Your task to perform on an android device: Open Chrome and go to the settings page Image 0: 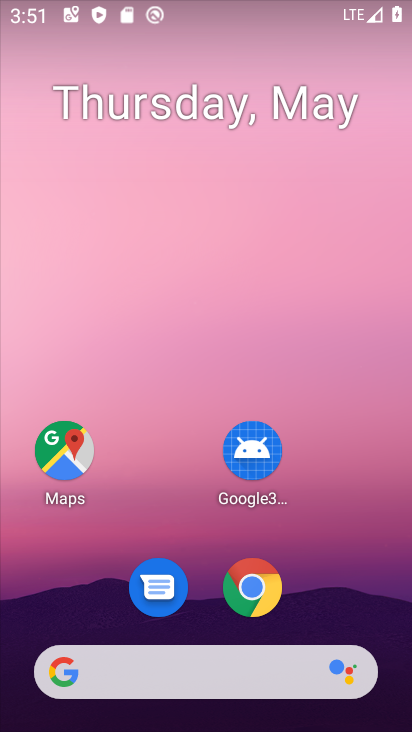
Step 0: click (234, 571)
Your task to perform on an android device: Open Chrome and go to the settings page Image 1: 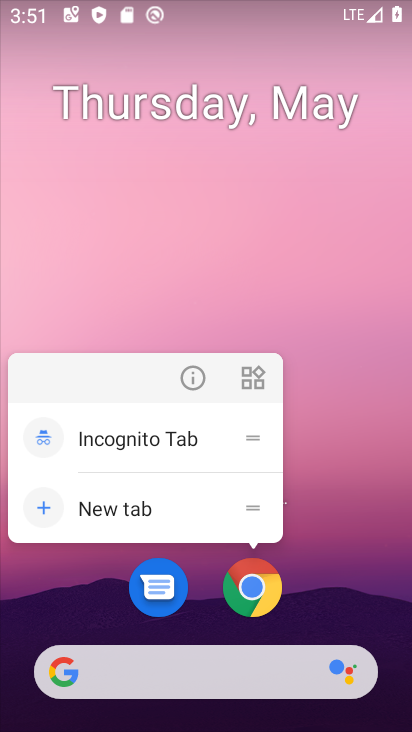
Step 1: click (245, 589)
Your task to perform on an android device: Open Chrome and go to the settings page Image 2: 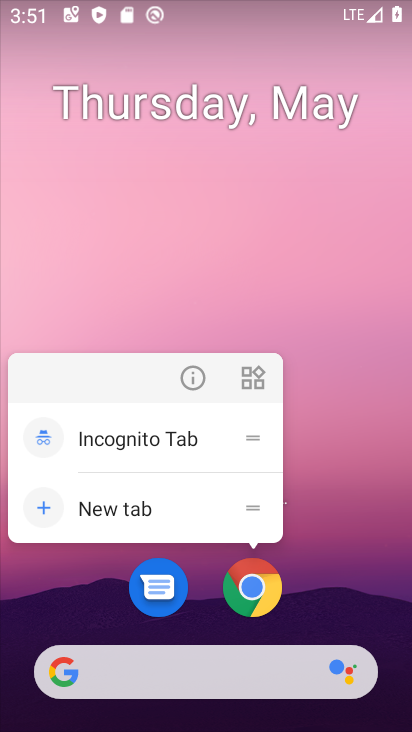
Step 2: click (245, 589)
Your task to perform on an android device: Open Chrome and go to the settings page Image 3: 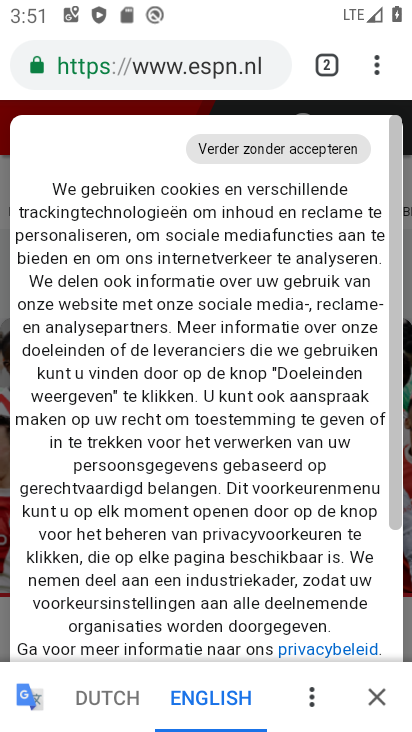
Step 3: click (366, 59)
Your task to perform on an android device: Open Chrome and go to the settings page Image 4: 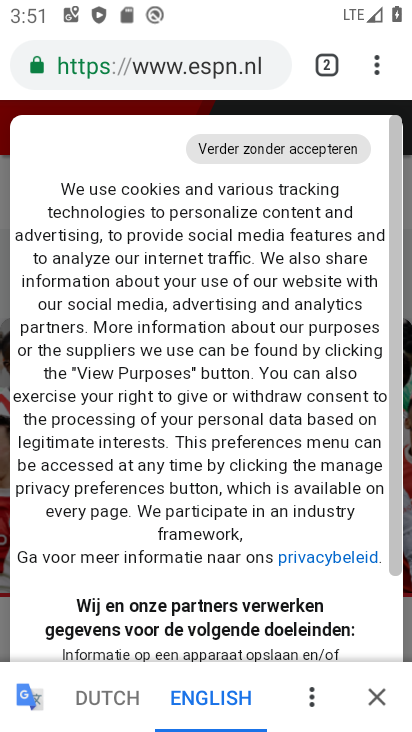
Step 4: drag from (271, 91) to (271, 174)
Your task to perform on an android device: Open Chrome and go to the settings page Image 5: 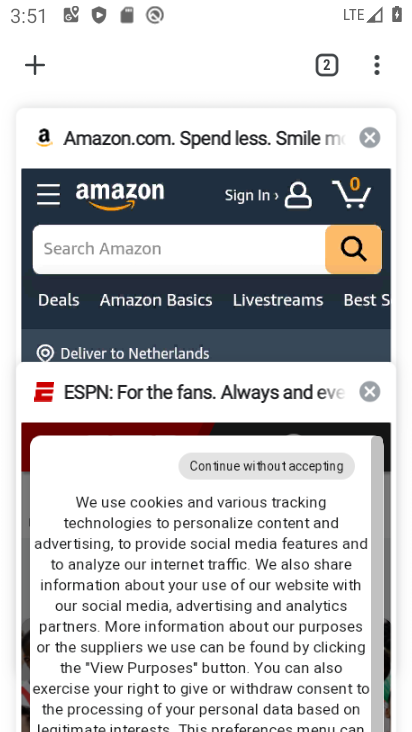
Step 5: click (375, 61)
Your task to perform on an android device: Open Chrome and go to the settings page Image 6: 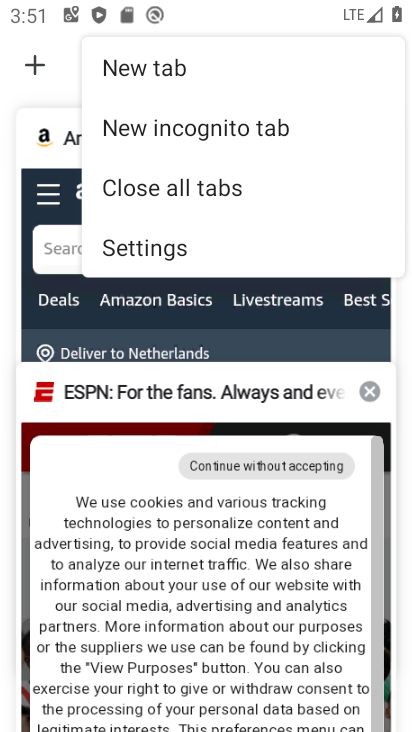
Step 6: click (226, 255)
Your task to perform on an android device: Open Chrome and go to the settings page Image 7: 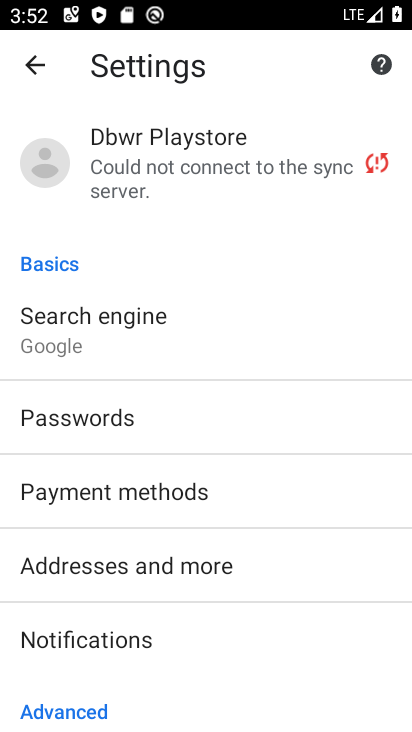
Step 7: task complete